Your task to perform on an android device: What's the weather going to be tomorrow? Image 0: 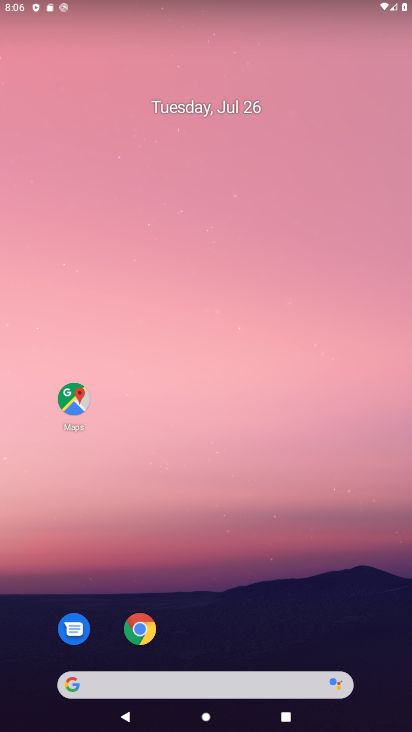
Step 0: click (190, 688)
Your task to perform on an android device: What's the weather going to be tomorrow? Image 1: 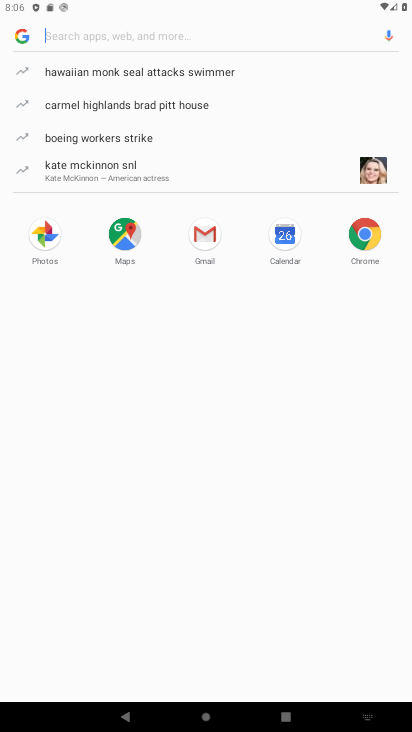
Step 1: type "we"
Your task to perform on an android device: What's the weather going to be tomorrow? Image 2: 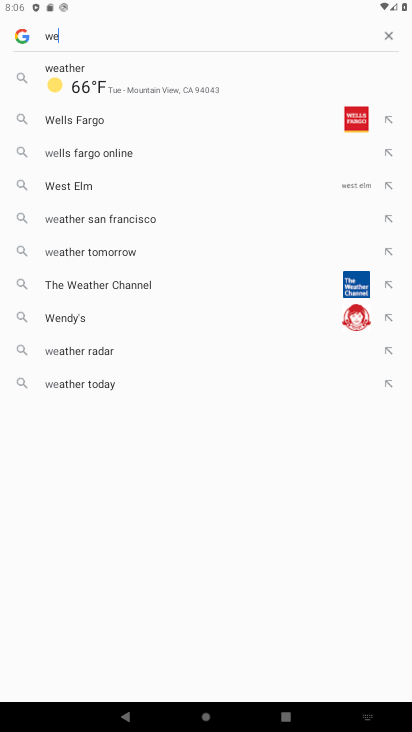
Step 2: click (58, 66)
Your task to perform on an android device: What's the weather going to be tomorrow? Image 3: 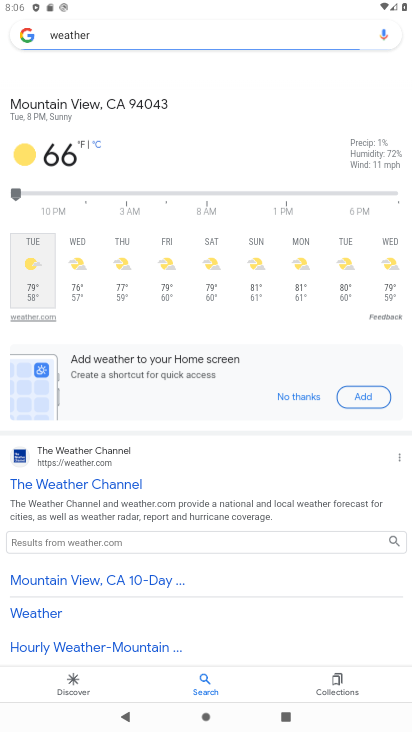
Step 3: click (85, 275)
Your task to perform on an android device: What's the weather going to be tomorrow? Image 4: 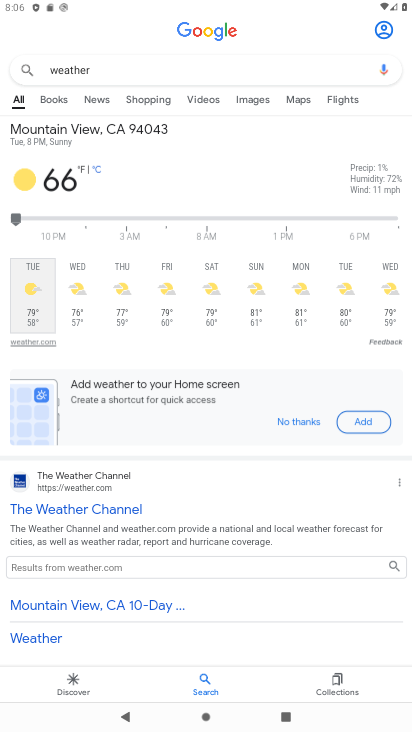
Step 4: click (85, 275)
Your task to perform on an android device: What's the weather going to be tomorrow? Image 5: 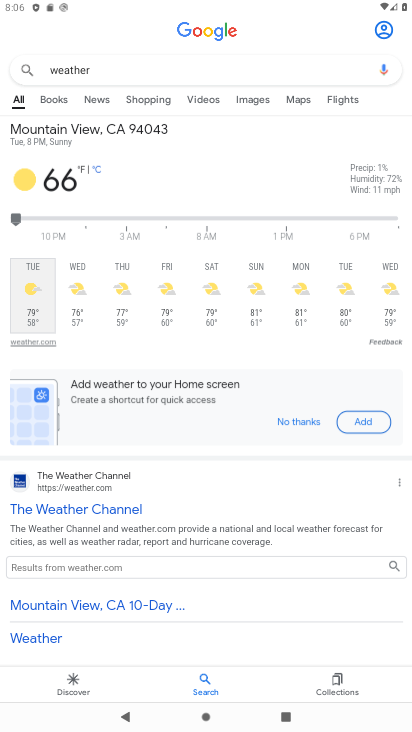
Step 5: click (85, 275)
Your task to perform on an android device: What's the weather going to be tomorrow? Image 6: 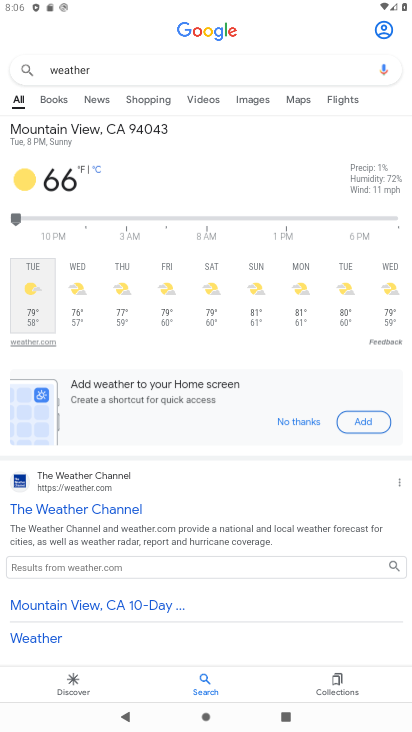
Step 6: click (81, 300)
Your task to perform on an android device: What's the weather going to be tomorrow? Image 7: 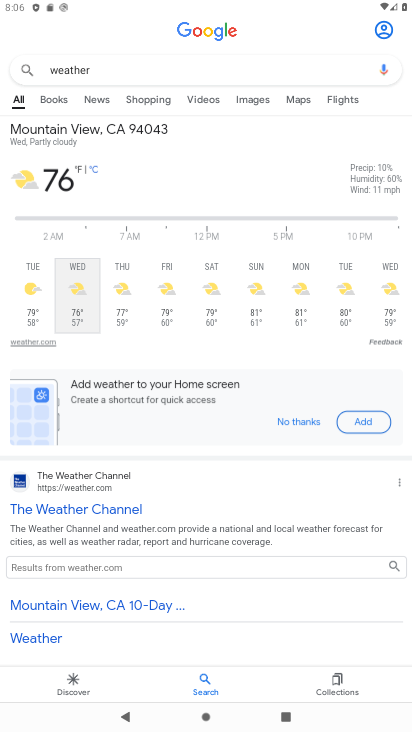
Step 7: click (81, 300)
Your task to perform on an android device: What's the weather going to be tomorrow? Image 8: 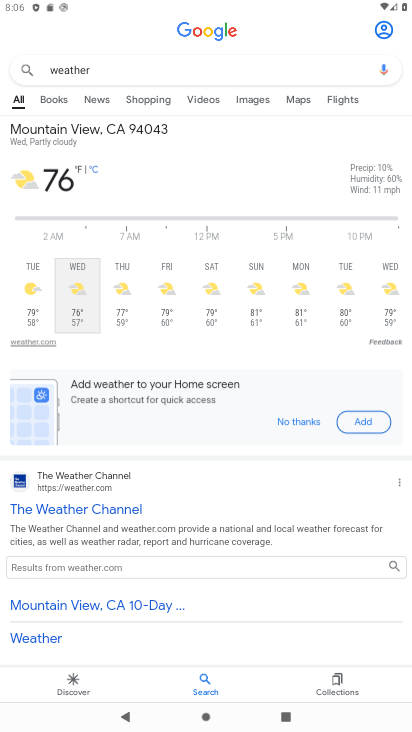
Step 8: click (81, 300)
Your task to perform on an android device: What's the weather going to be tomorrow? Image 9: 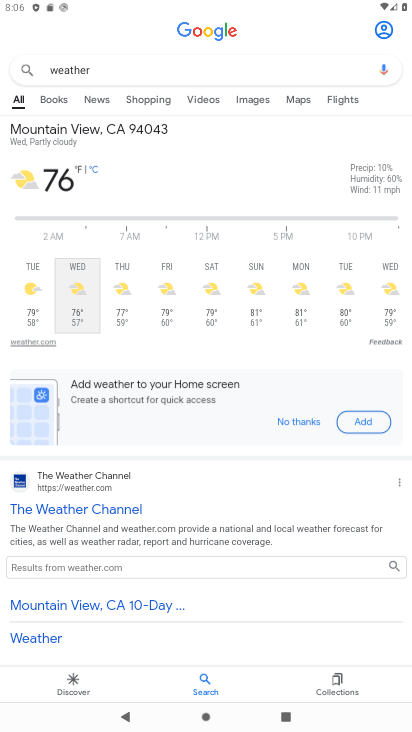
Step 9: task complete